Your task to perform on an android device: turn off sleep mode Image 0: 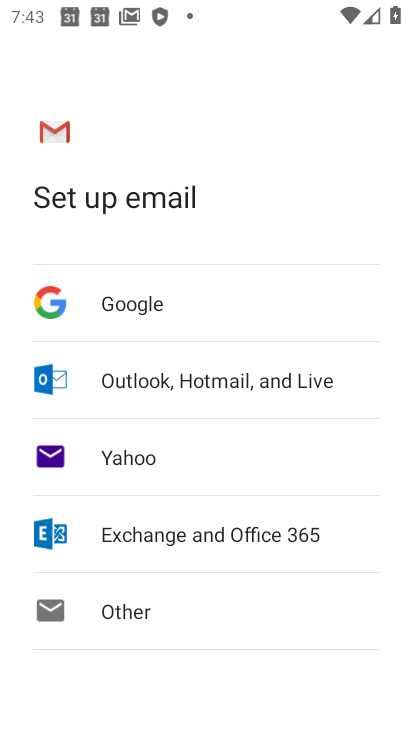
Step 0: press home button
Your task to perform on an android device: turn off sleep mode Image 1: 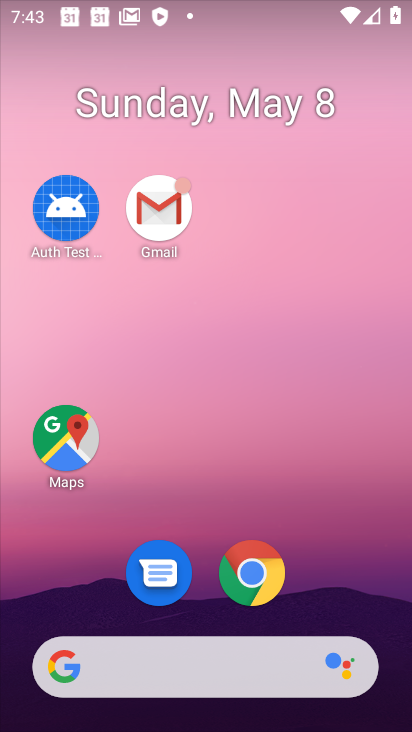
Step 1: drag from (325, 698) to (173, 90)
Your task to perform on an android device: turn off sleep mode Image 2: 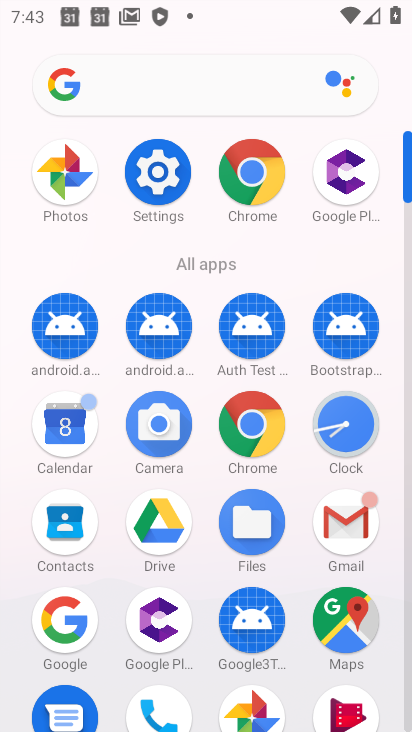
Step 2: click (158, 170)
Your task to perform on an android device: turn off sleep mode Image 3: 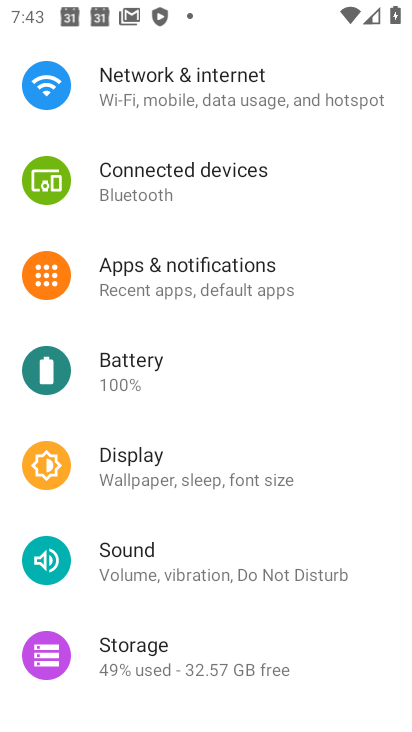
Step 3: task complete